Your task to perform on an android device: open app "Nova Launcher" (install if not already installed) and enter user name: "haggard@gmail.com" and password: "sadder" Image 0: 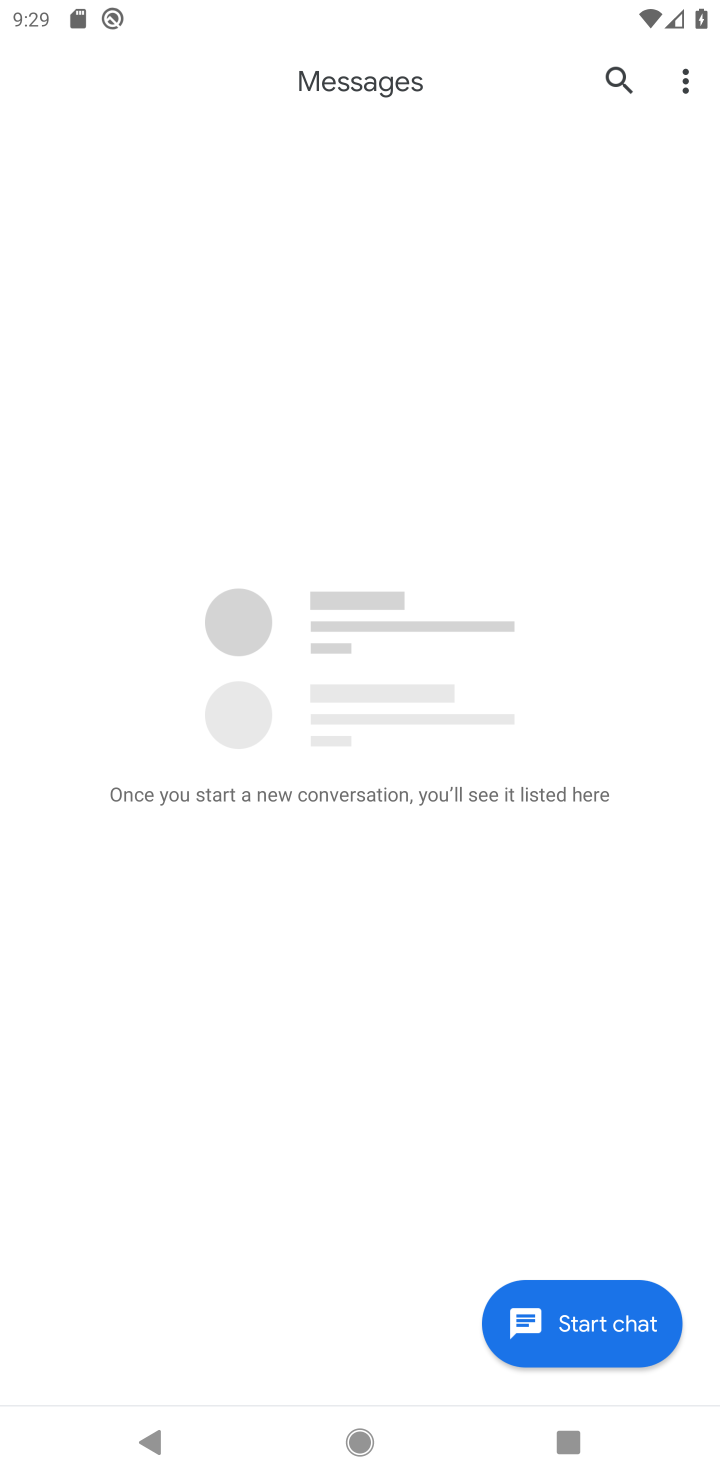
Step 0: press back button
Your task to perform on an android device: open app "Nova Launcher" (install if not already installed) and enter user name: "haggard@gmail.com" and password: "sadder" Image 1: 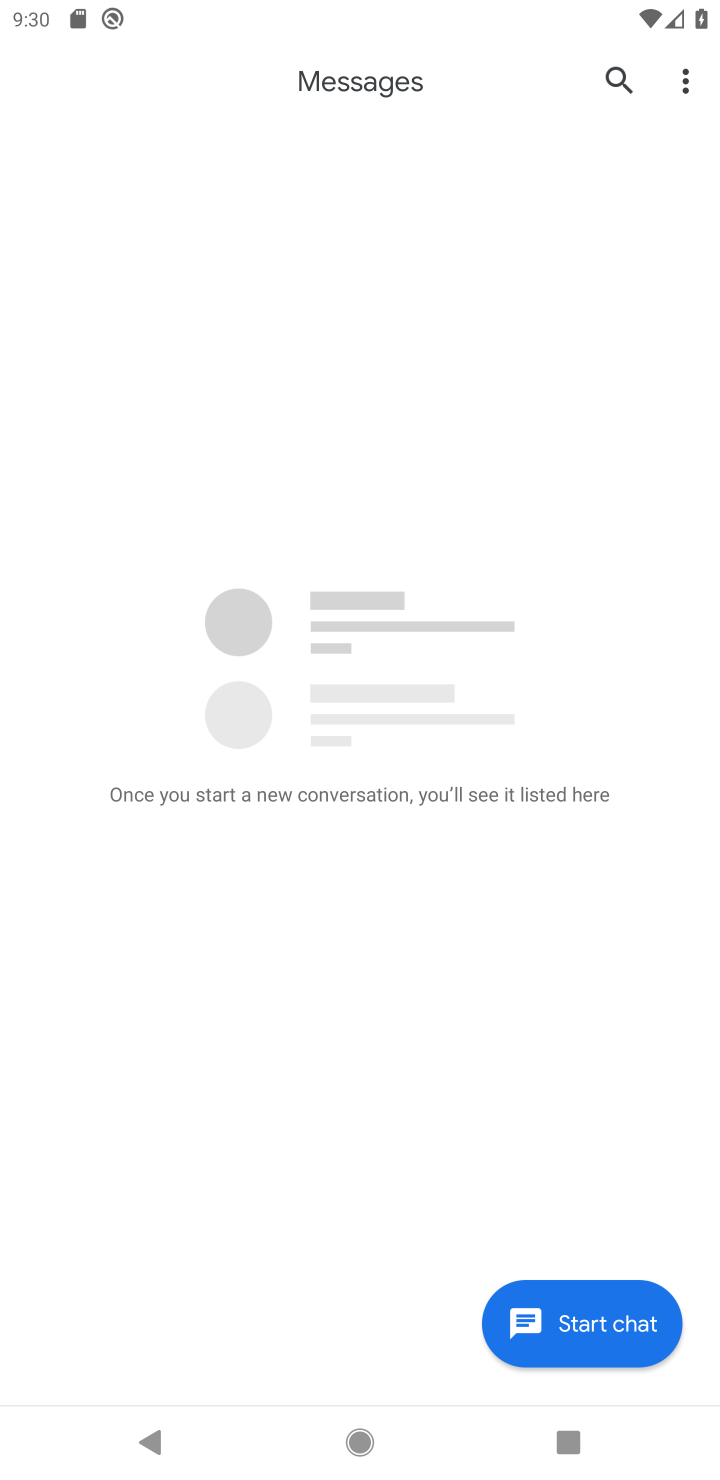
Step 1: press back button
Your task to perform on an android device: open app "Nova Launcher" (install if not already installed) and enter user name: "haggard@gmail.com" and password: "sadder" Image 2: 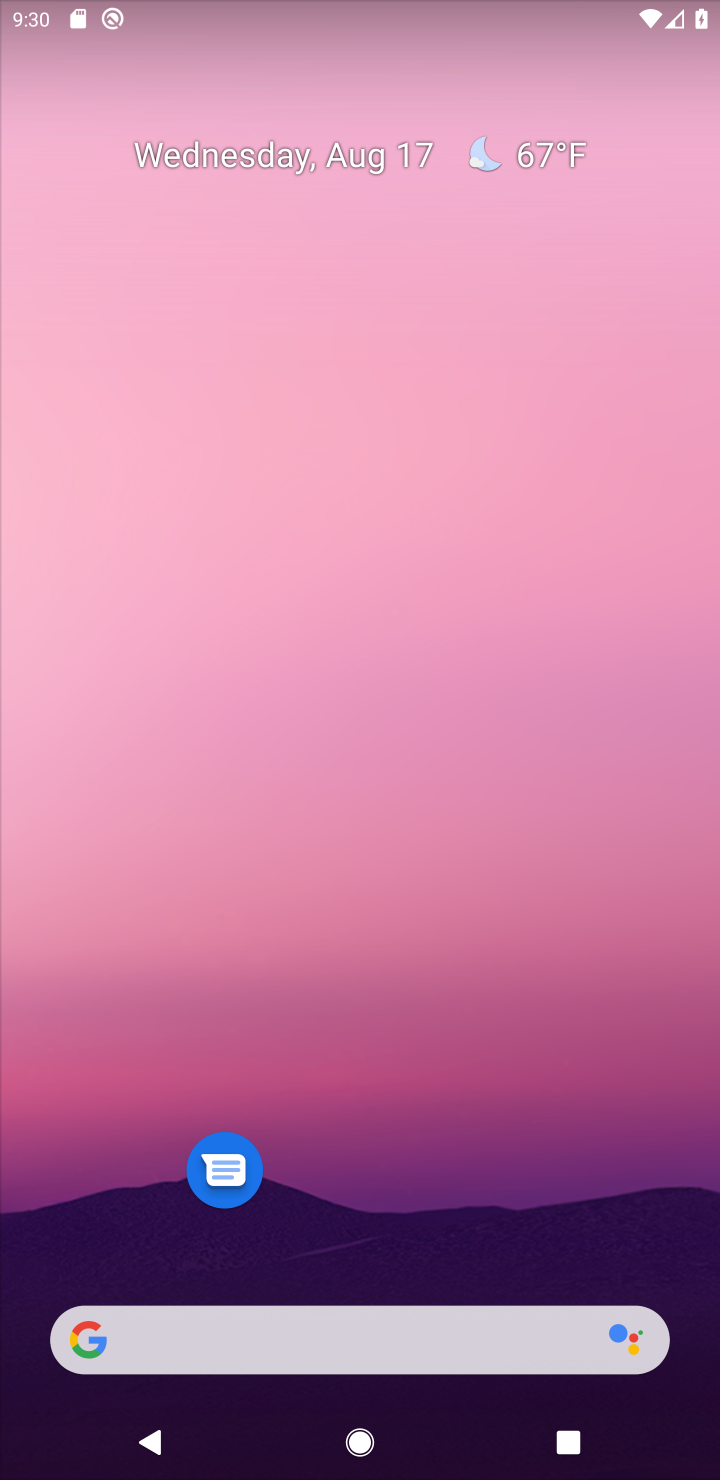
Step 2: drag from (352, 1257) to (231, 1)
Your task to perform on an android device: open app "Nova Launcher" (install if not already installed) and enter user name: "haggard@gmail.com" and password: "sadder" Image 3: 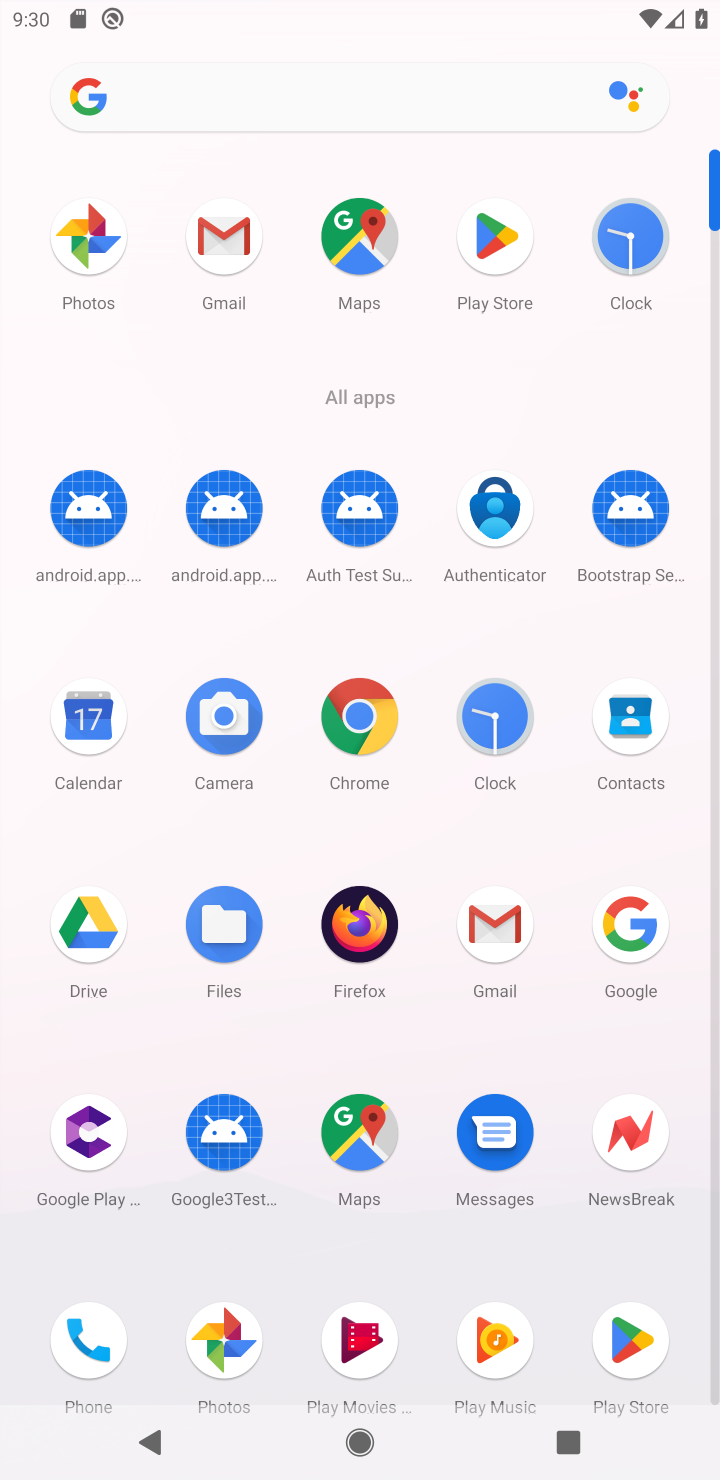
Step 3: click (609, 1353)
Your task to perform on an android device: open app "Nova Launcher" (install if not already installed) and enter user name: "haggard@gmail.com" and password: "sadder" Image 4: 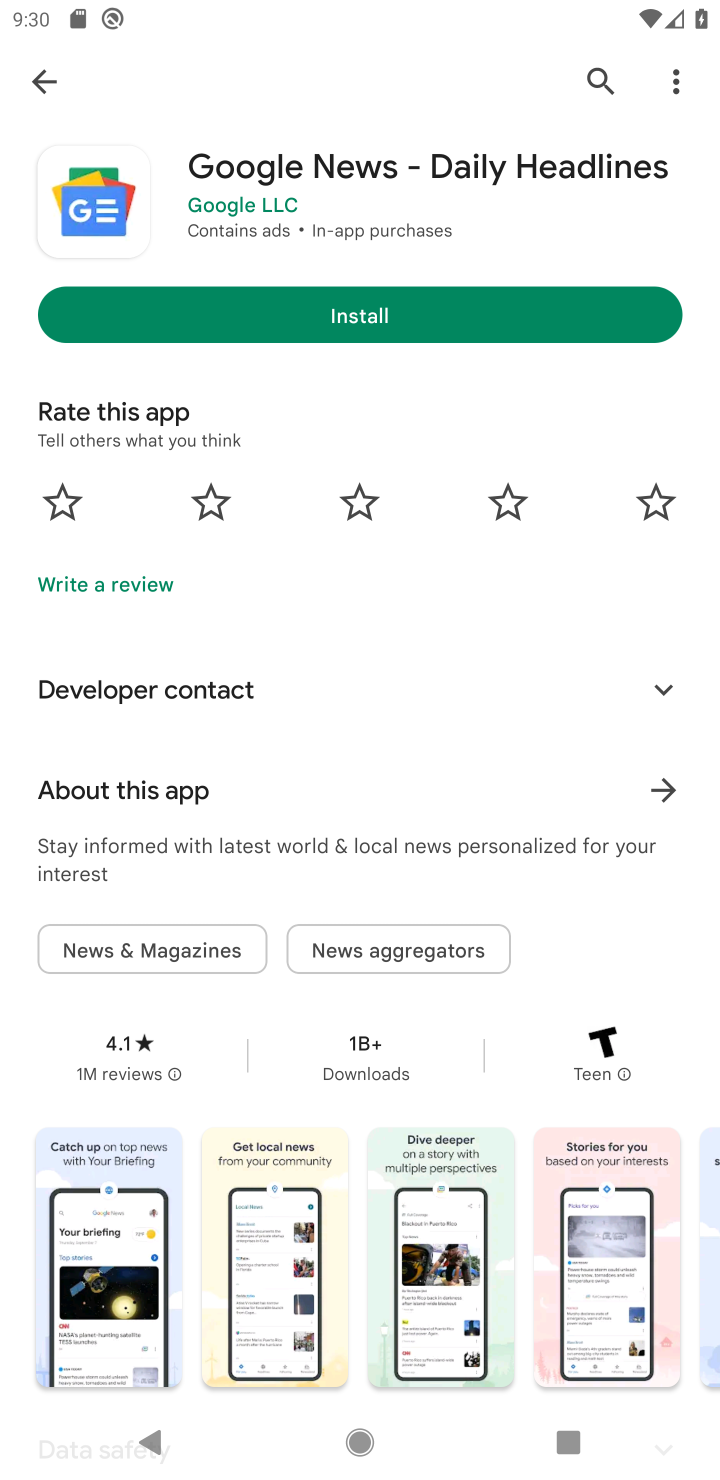
Step 4: click (40, 67)
Your task to perform on an android device: open app "Nova Launcher" (install if not already installed) and enter user name: "haggard@gmail.com" and password: "sadder" Image 5: 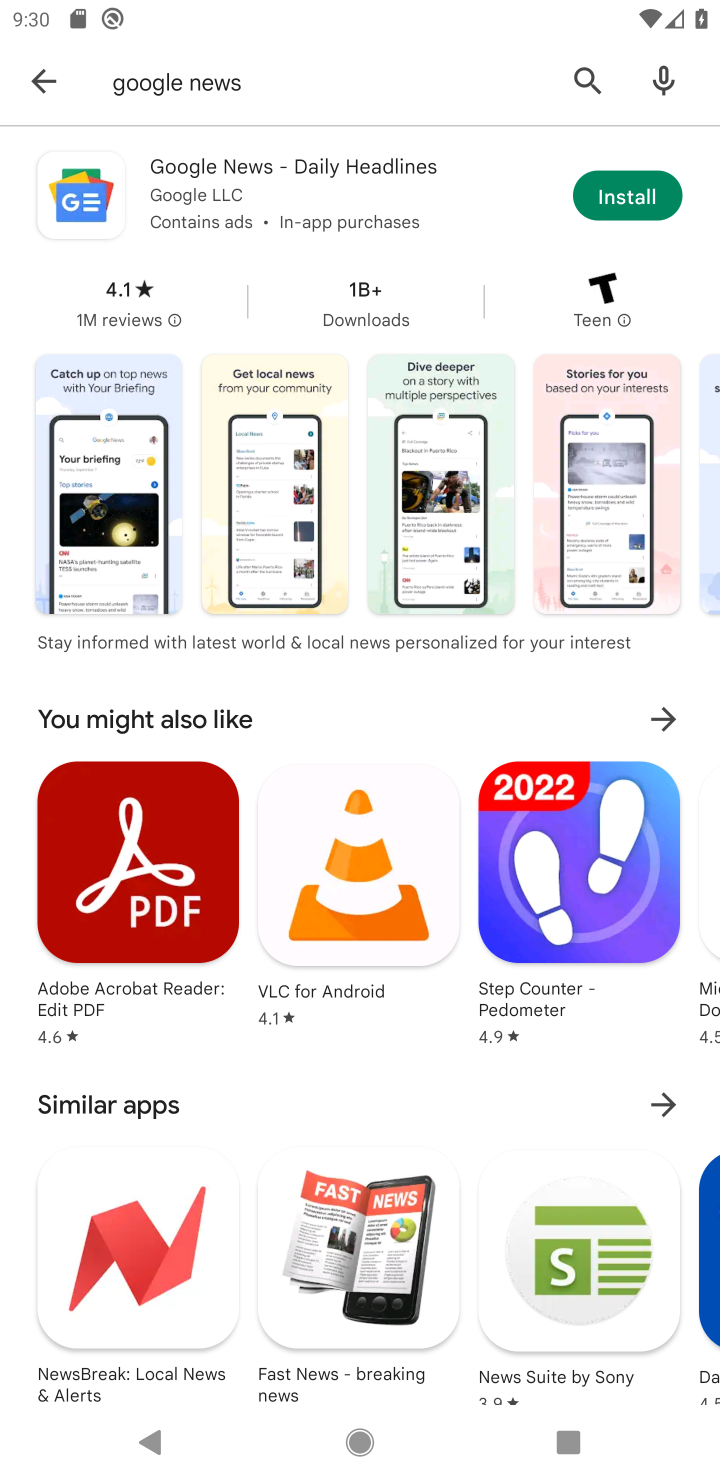
Step 5: click (99, 90)
Your task to perform on an android device: open app "Nova Launcher" (install if not already installed) and enter user name: "haggard@gmail.com" and password: "sadder" Image 6: 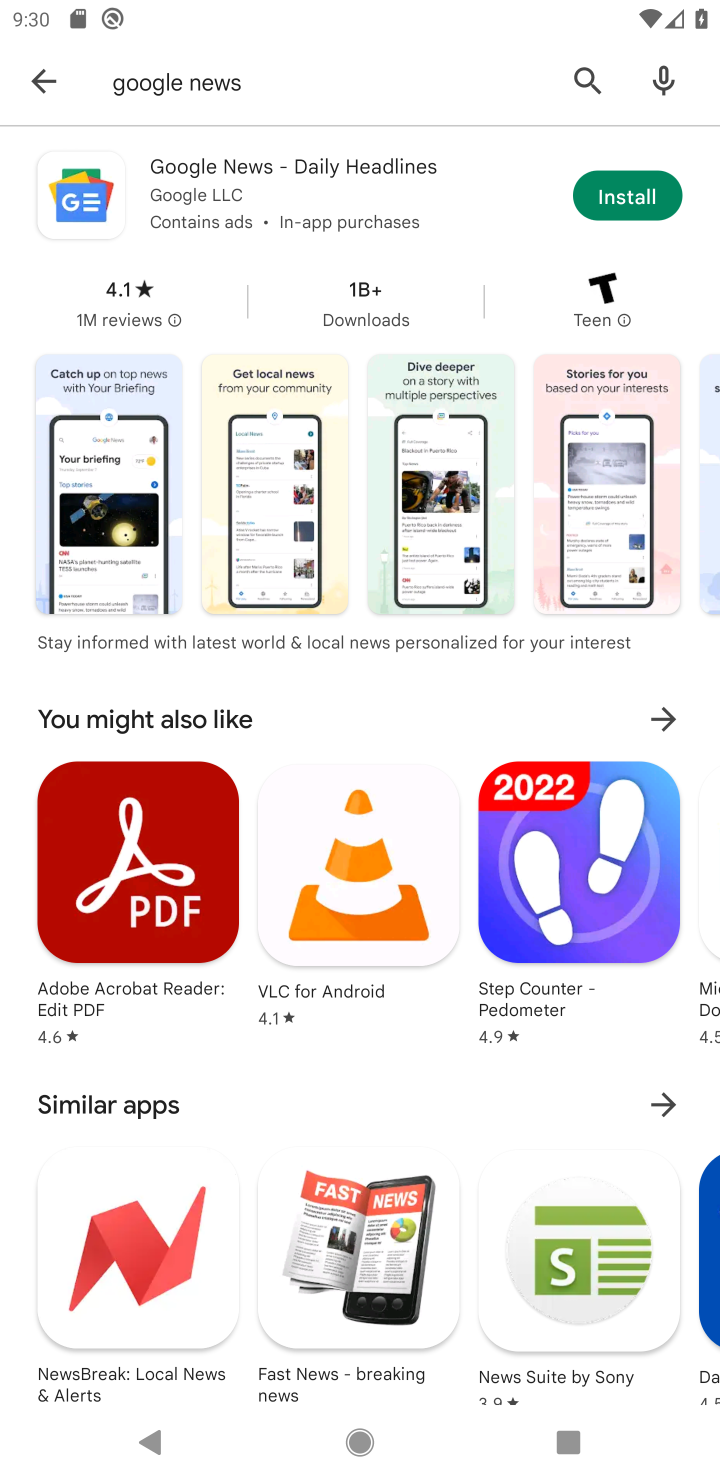
Step 6: click (585, 85)
Your task to perform on an android device: open app "Nova Launcher" (install if not already installed) and enter user name: "haggard@gmail.com" and password: "sadder" Image 7: 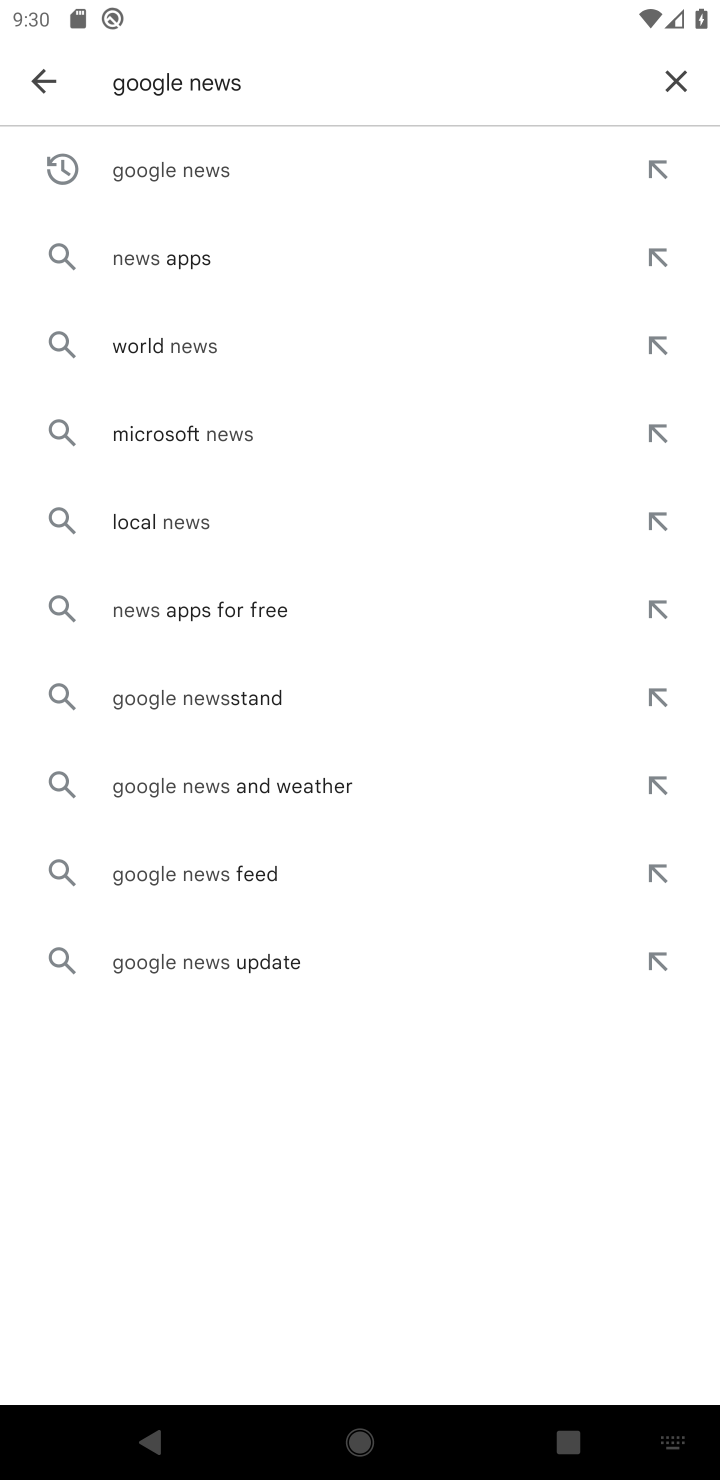
Step 7: click (660, 84)
Your task to perform on an android device: open app "Nova Launcher" (install if not already installed) and enter user name: "haggard@gmail.com" and password: "sadder" Image 8: 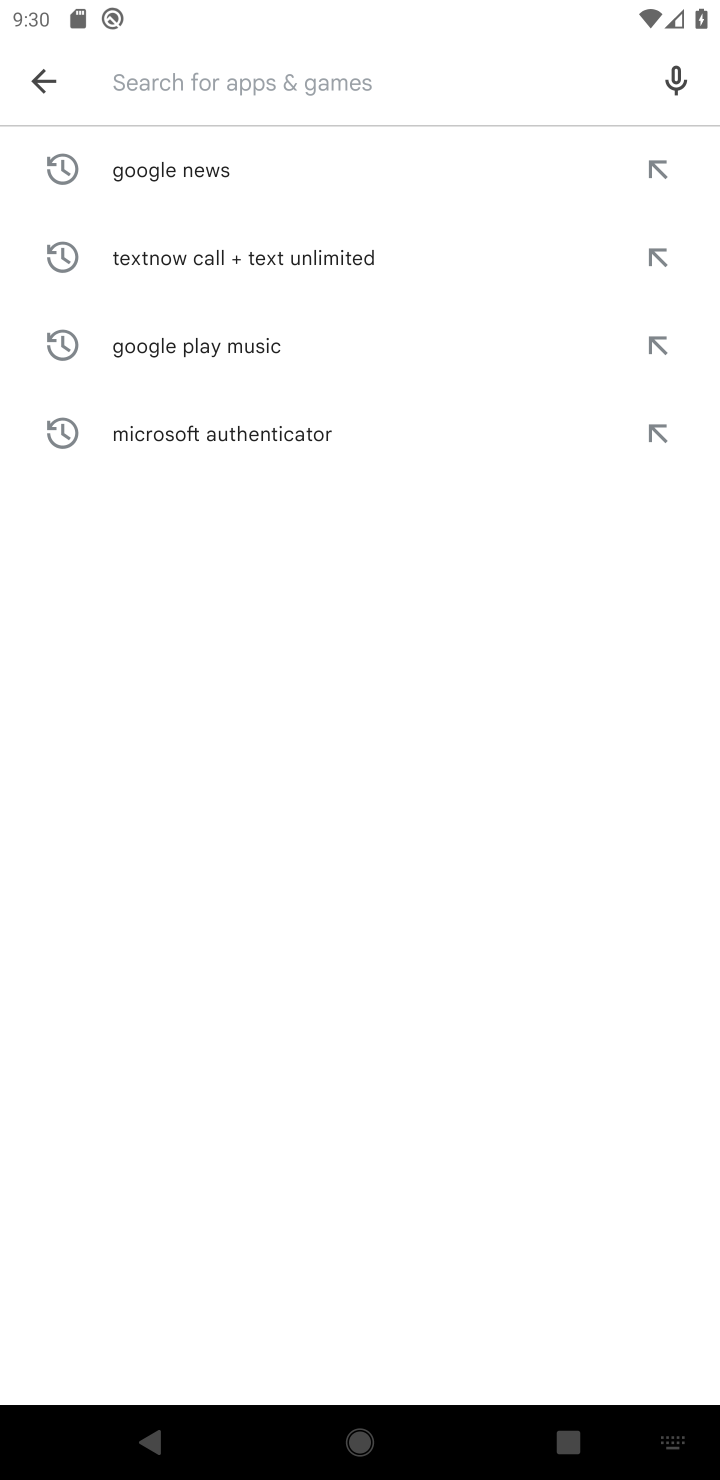
Step 8: type "Nova Launche"
Your task to perform on an android device: open app "Nova Launcher" (install if not already installed) and enter user name: "haggard@gmail.com" and password: "sadder" Image 9: 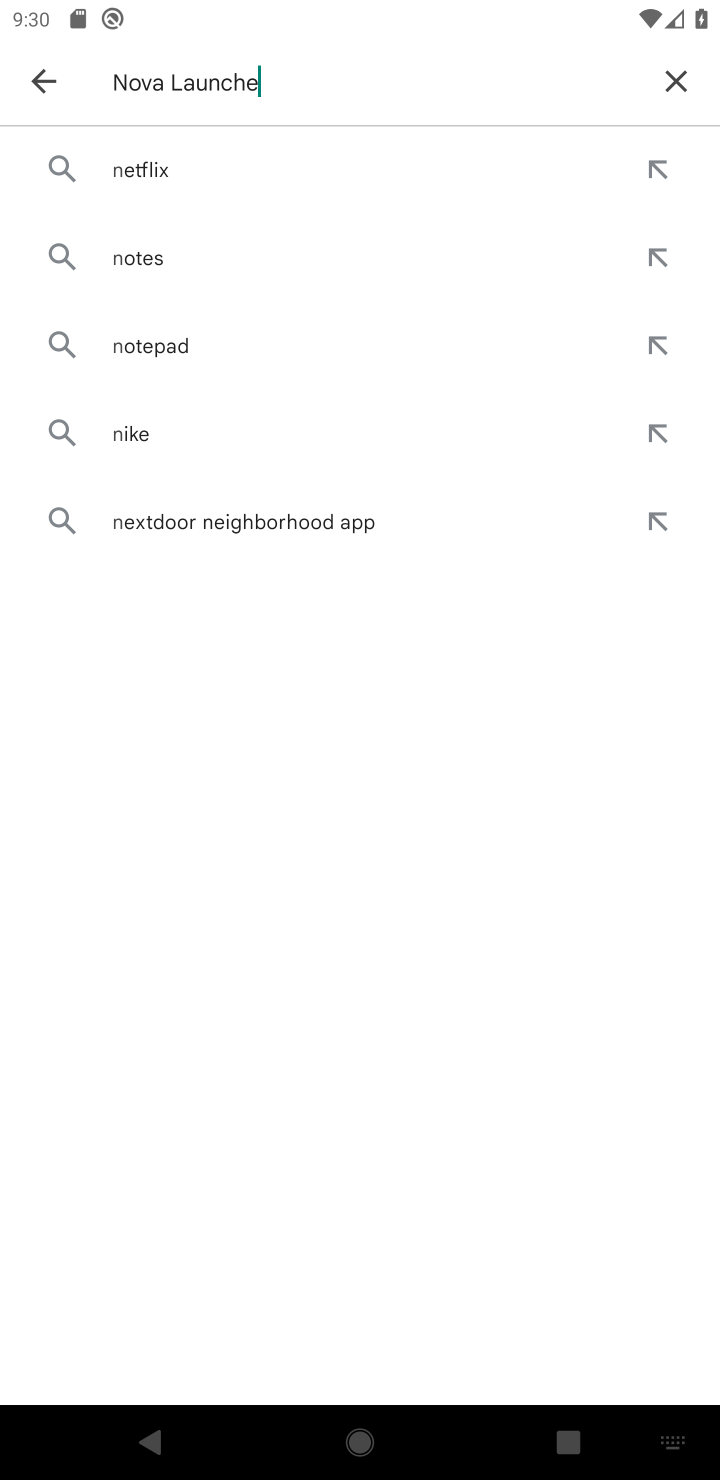
Step 9: type ""
Your task to perform on an android device: open app "Nova Launcher" (install if not already installed) and enter user name: "haggard@gmail.com" and password: "sadder" Image 10: 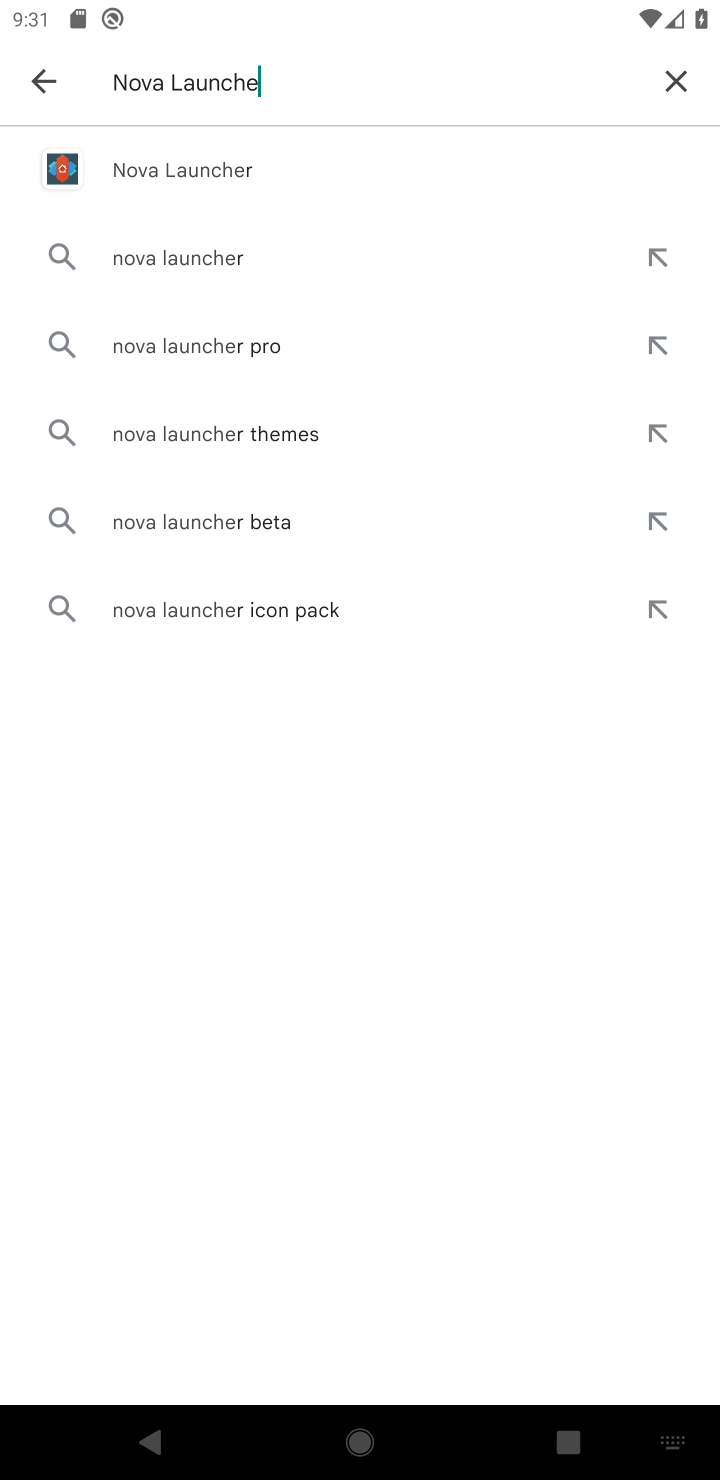
Step 10: click (241, 151)
Your task to perform on an android device: open app "Nova Launcher" (install if not already installed) and enter user name: "haggard@gmail.com" and password: "sadder" Image 11: 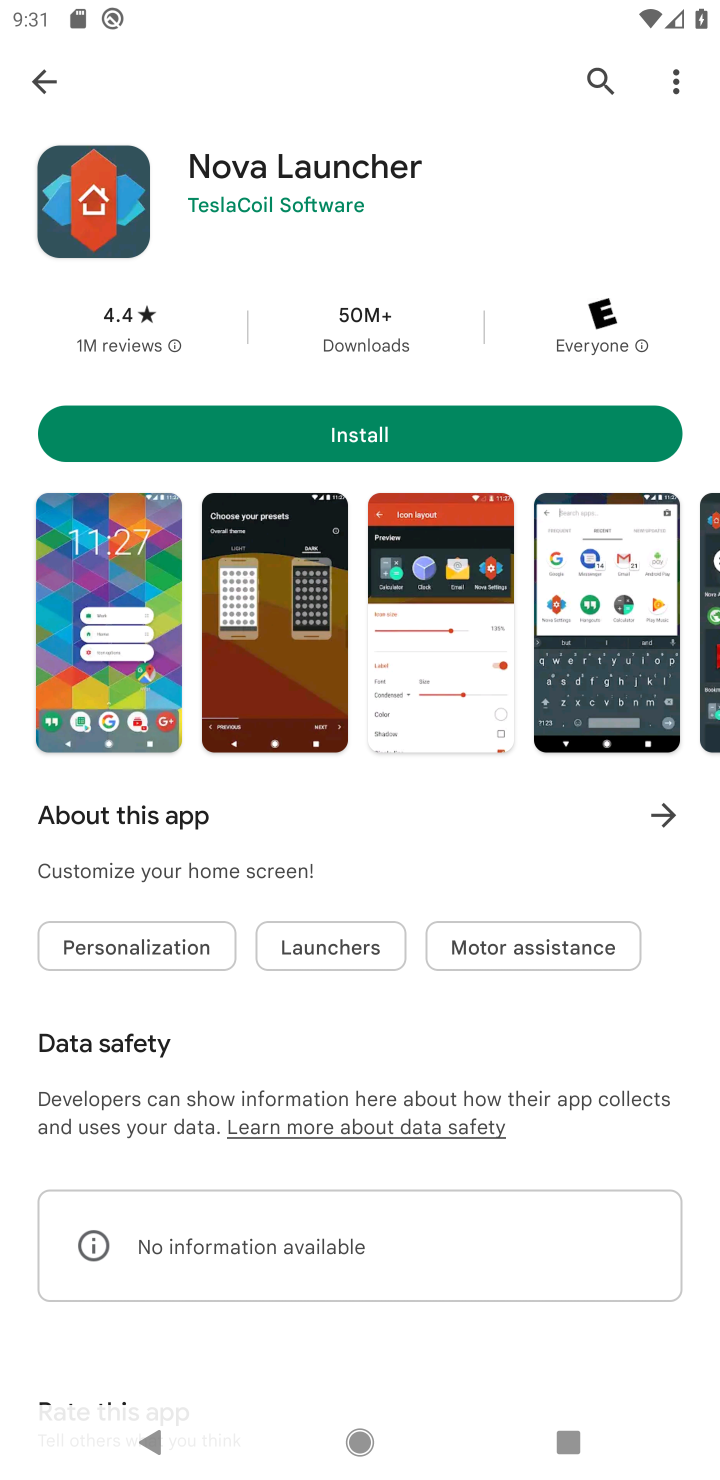
Step 11: click (129, 421)
Your task to perform on an android device: open app "Nova Launcher" (install if not already installed) and enter user name: "haggard@gmail.com" and password: "sadder" Image 12: 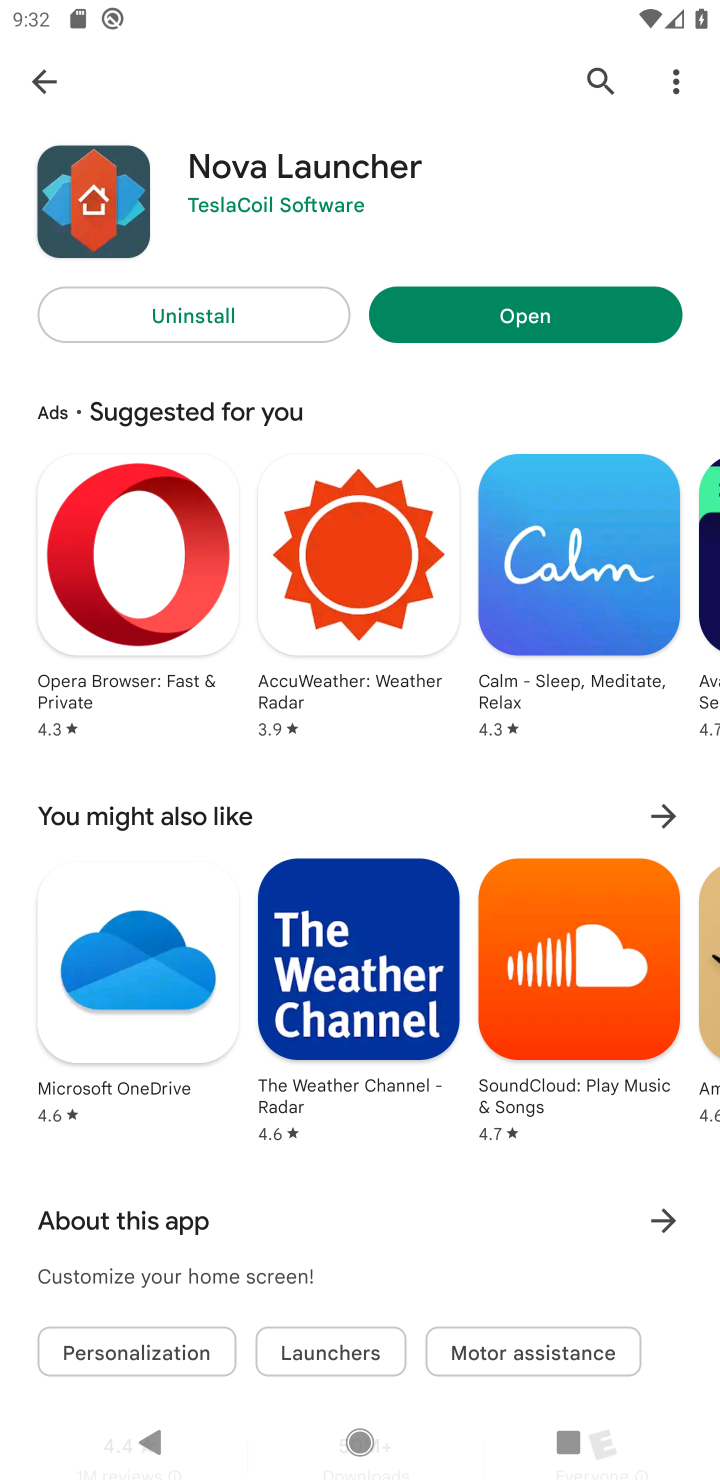
Step 12: click (610, 272)
Your task to perform on an android device: open app "Nova Launcher" (install if not already installed) and enter user name: "haggard@gmail.com" and password: "sadder" Image 13: 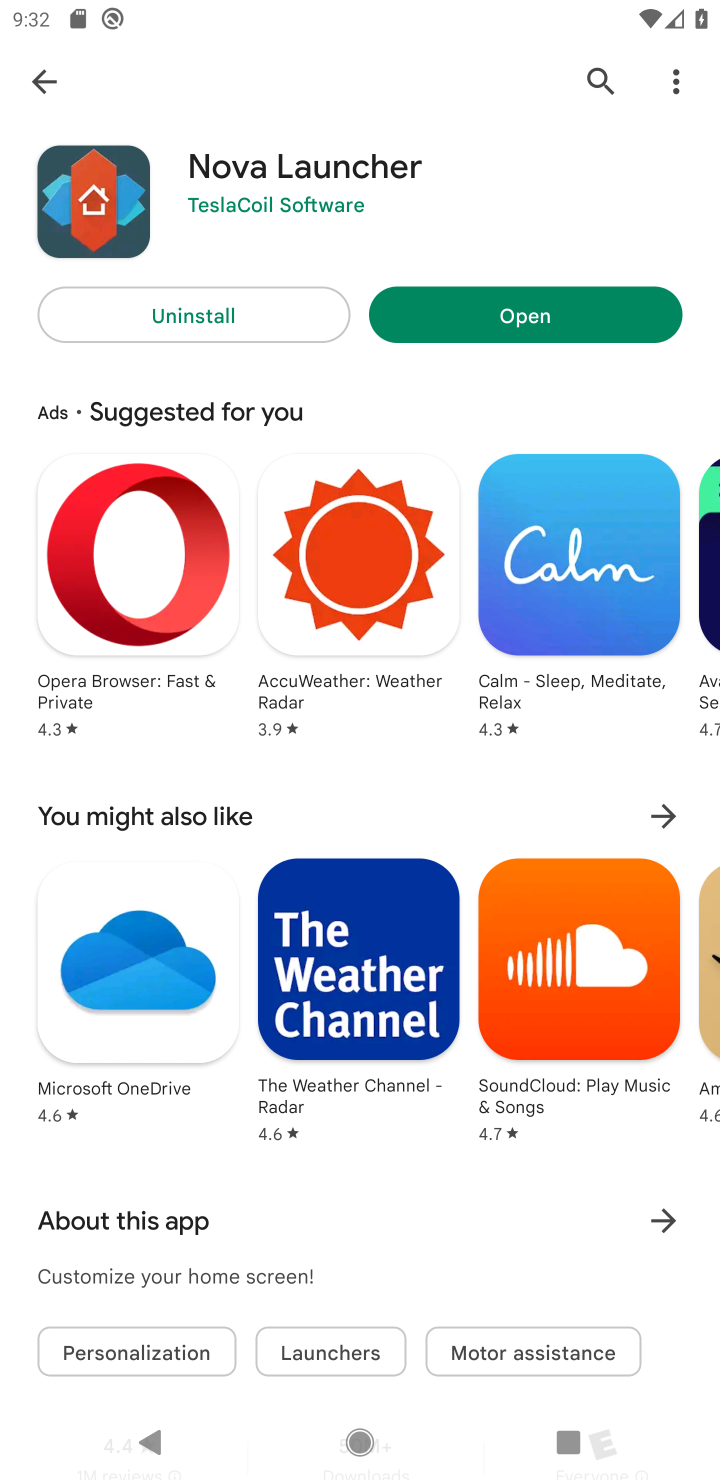
Step 13: click (571, 317)
Your task to perform on an android device: open app "Nova Launcher" (install if not already installed) and enter user name: "haggard@gmail.com" and password: "sadder" Image 14: 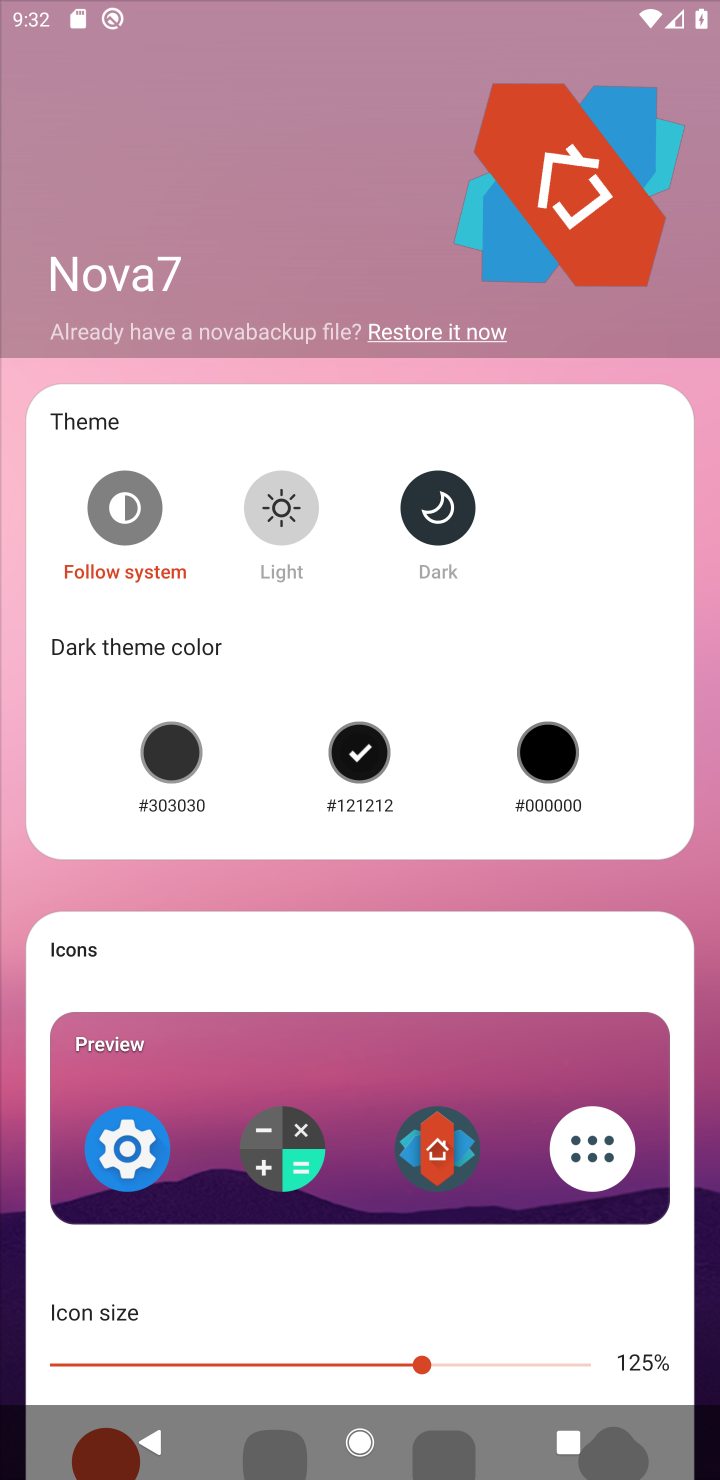
Step 14: drag from (492, 1241) to (434, 368)
Your task to perform on an android device: open app "Nova Launcher" (install if not already installed) and enter user name: "haggard@gmail.com" and password: "sadder" Image 15: 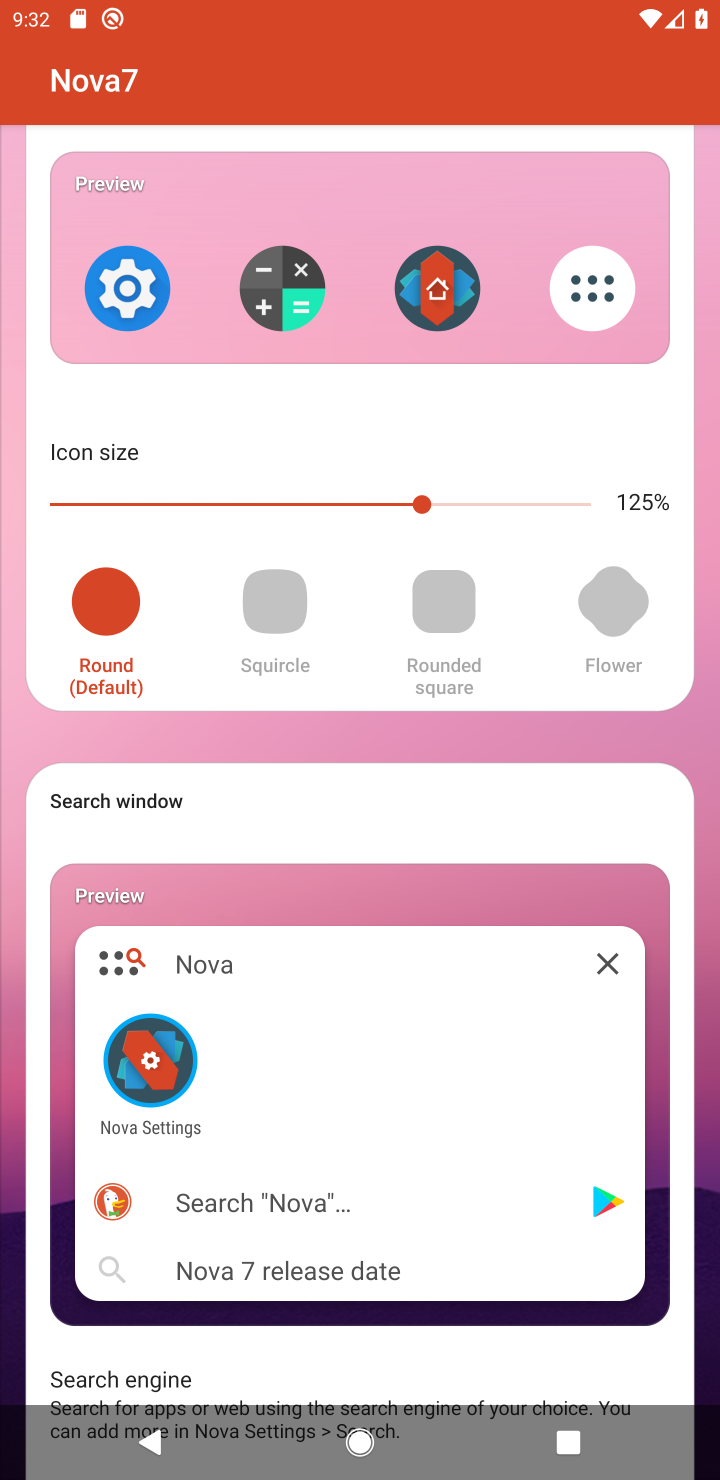
Step 15: drag from (282, 1012) to (307, 66)
Your task to perform on an android device: open app "Nova Launcher" (install if not already installed) and enter user name: "haggard@gmail.com" and password: "sadder" Image 16: 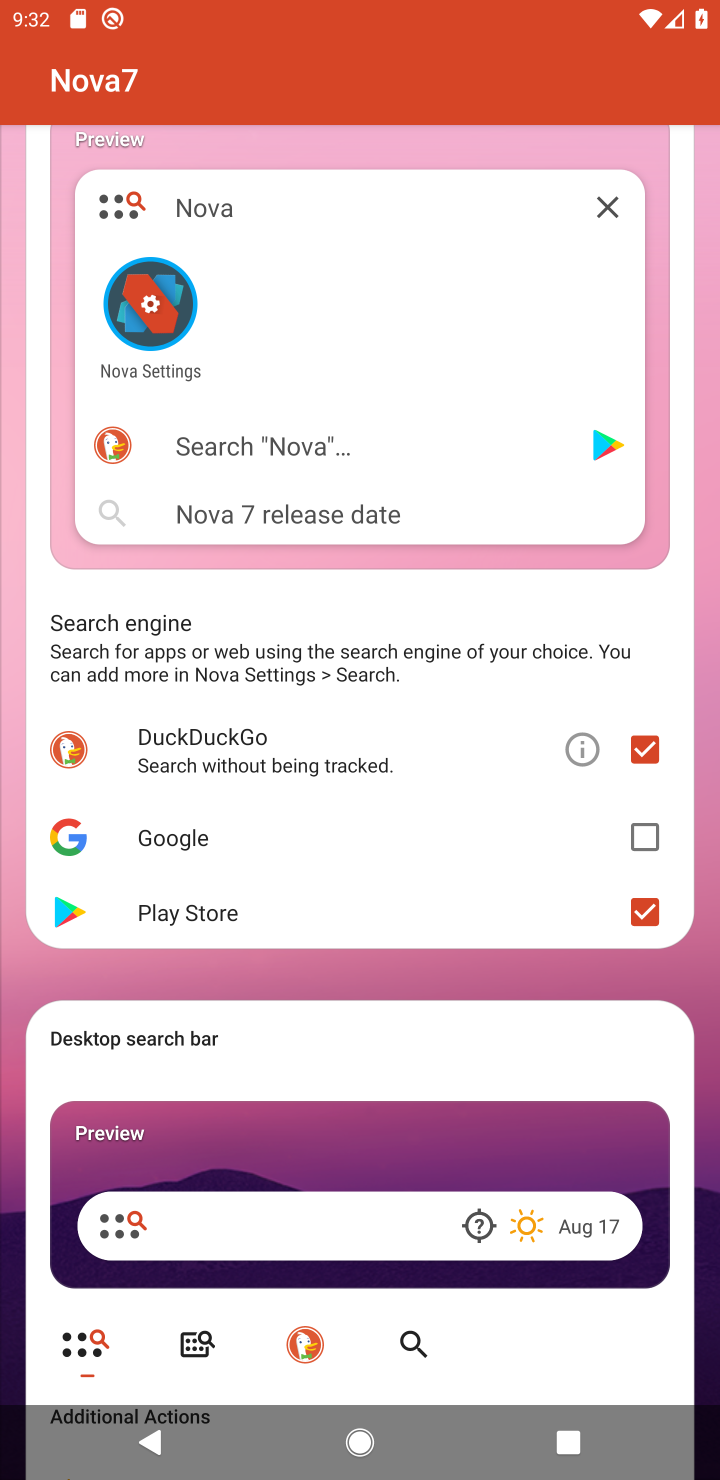
Step 16: drag from (491, 1205) to (406, 365)
Your task to perform on an android device: open app "Nova Launcher" (install if not already installed) and enter user name: "haggard@gmail.com" and password: "sadder" Image 17: 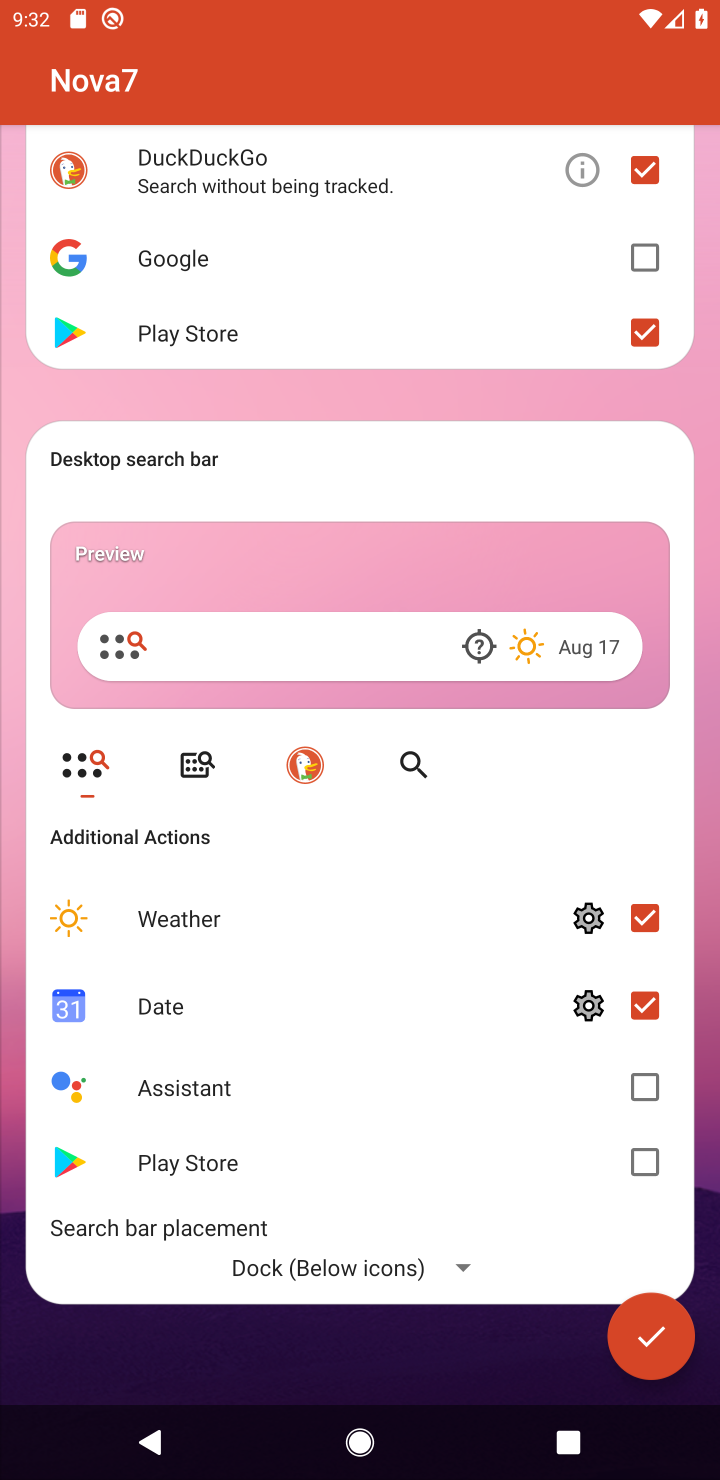
Step 17: drag from (308, 1273) to (269, 216)
Your task to perform on an android device: open app "Nova Launcher" (install if not already installed) and enter user name: "haggard@gmail.com" and password: "sadder" Image 18: 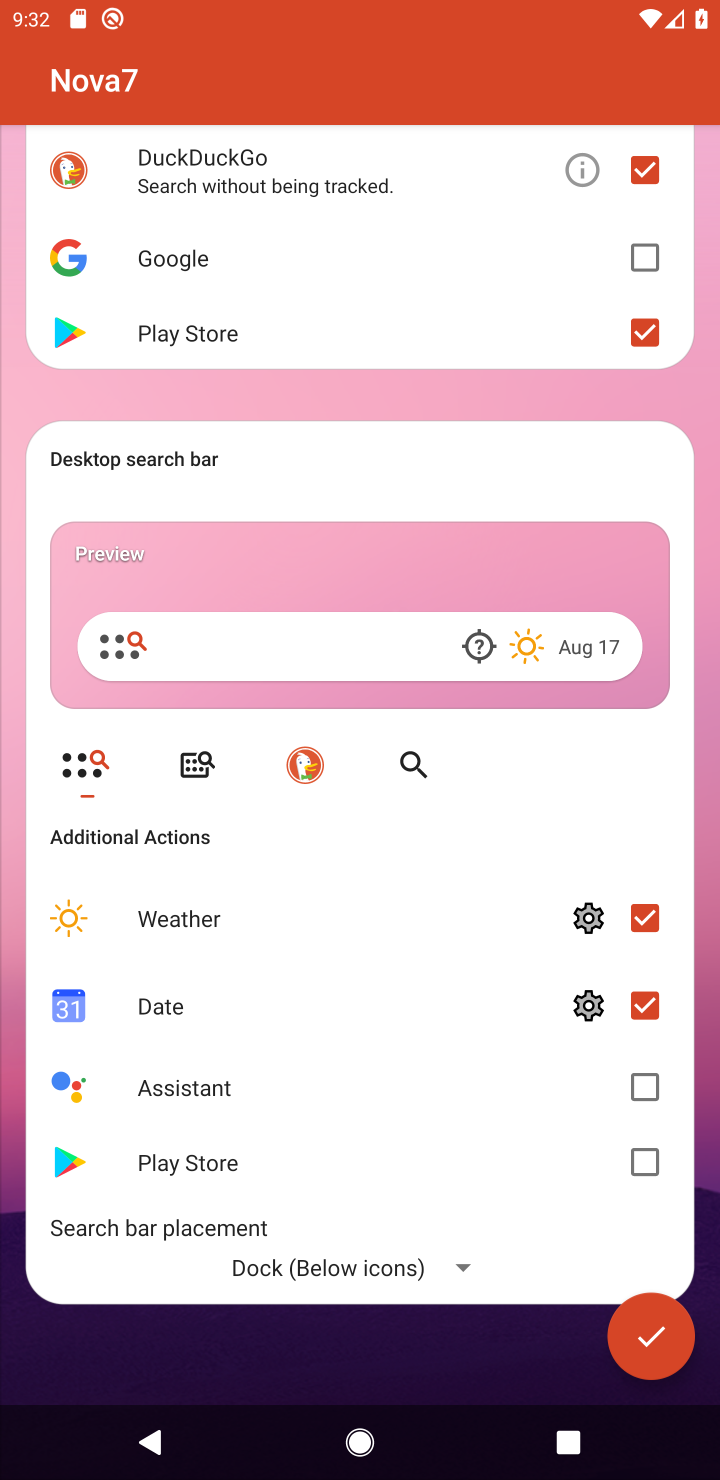
Step 18: click (677, 1348)
Your task to perform on an android device: open app "Nova Launcher" (install if not already installed) and enter user name: "haggard@gmail.com" and password: "sadder" Image 19: 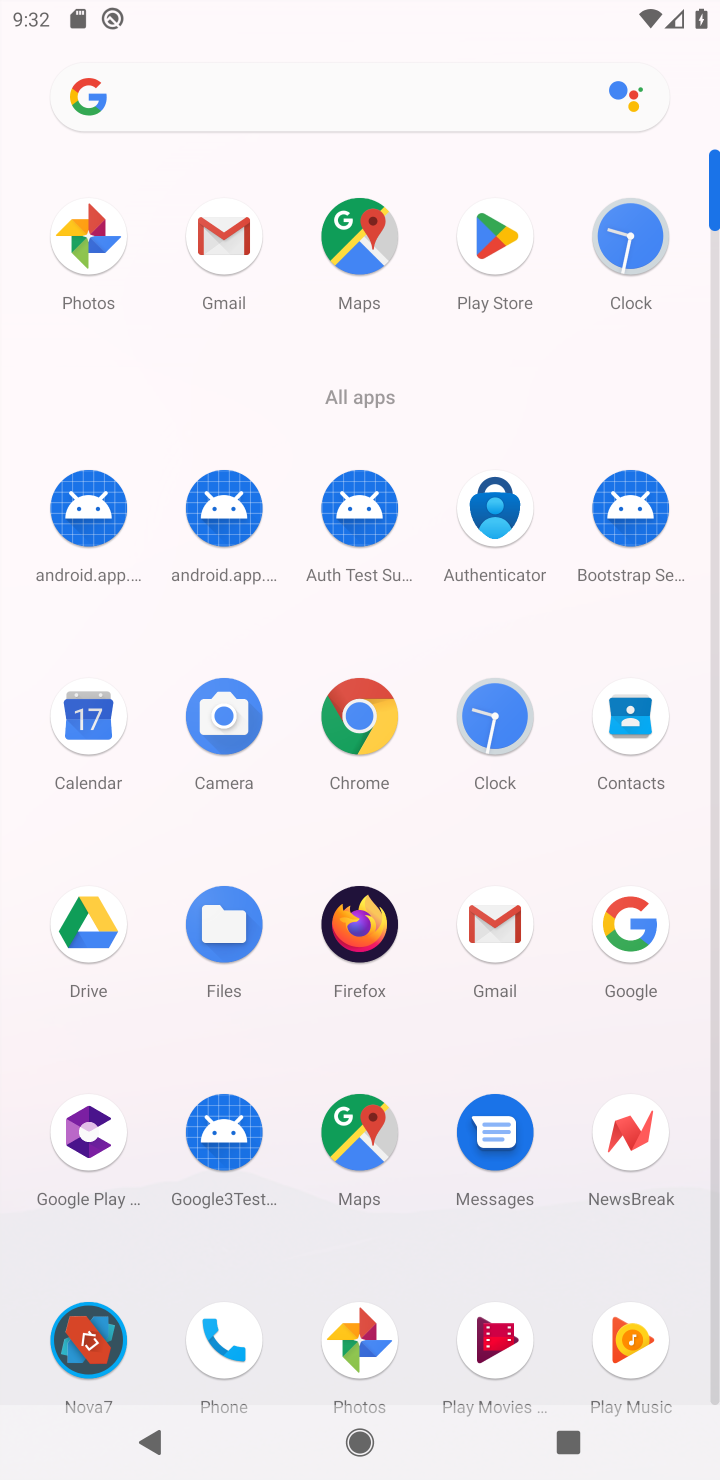
Step 19: task complete